Your task to perform on an android device: delete location history Image 0: 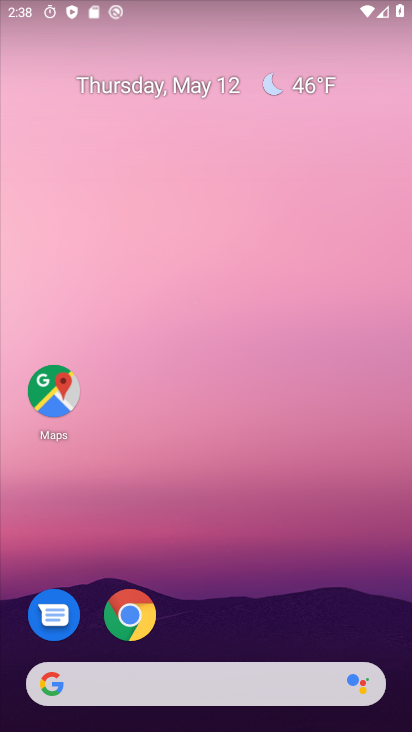
Step 0: drag from (244, 597) to (250, 111)
Your task to perform on an android device: delete location history Image 1: 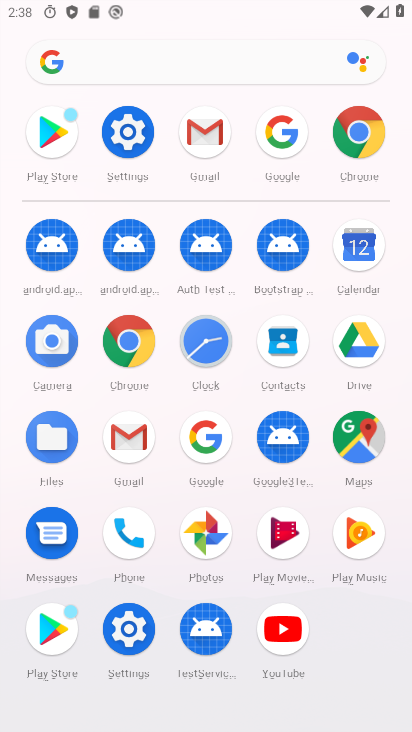
Step 1: click (127, 135)
Your task to perform on an android device: delete location history Image 2: 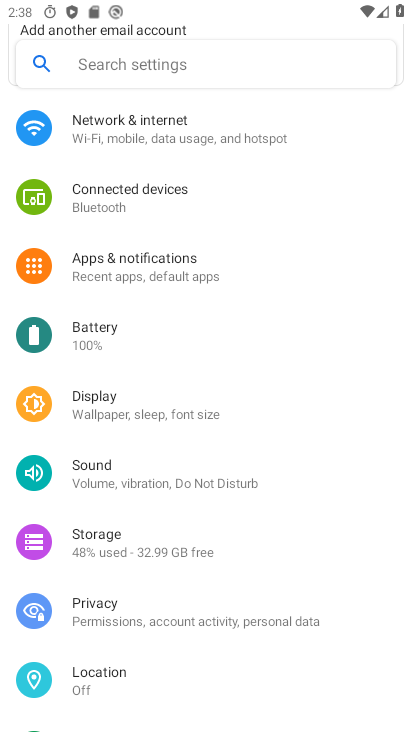
Step 2: drag from (222, 546) to (209, 228)
Your task to perform on an android device: delete location history Image 3: 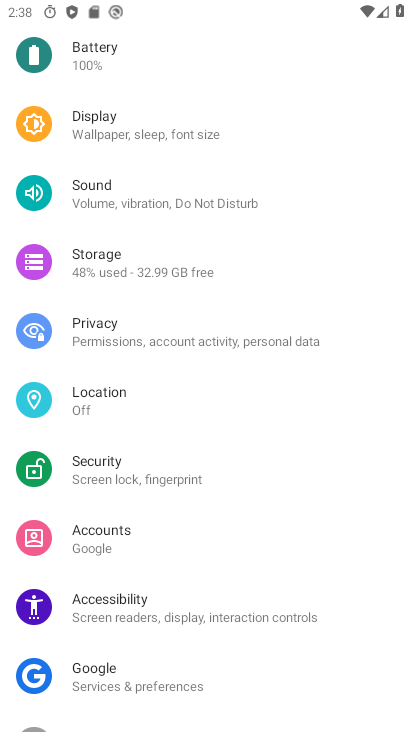
Step 3: click (151, 409)
Your task to perform on an android device: delete location history Image 4: 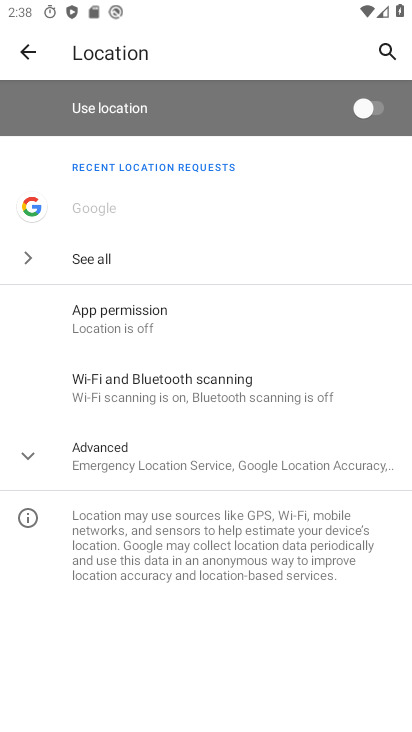
Step 4: click (138, 453)
Your task to perform on an android device: delete location history Image 5: 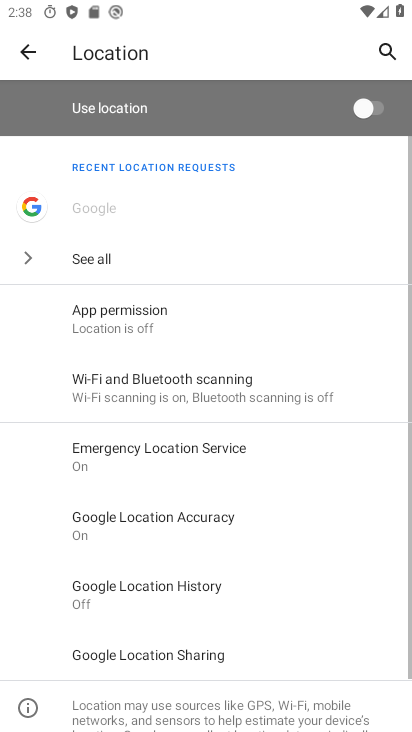
Step 5: drag from (227, 526) to (210, 325)
Your task to perform on an android device: delete location history Image 6: 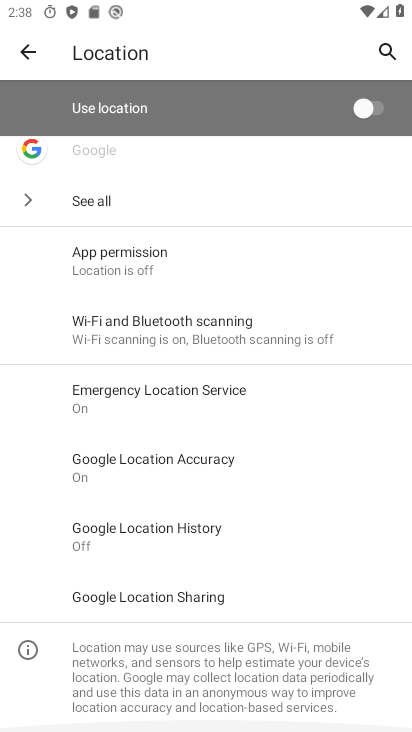
Step 6: click (131, 530)
Your task to perform on an android device: delete location history Image 7: 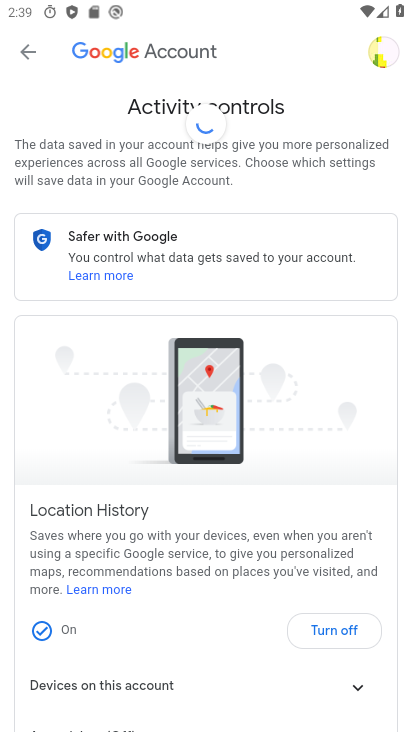
Step 7: drag from (178, 626) to (211, 225)
Your task to perform on an android device: delete location history Image 8: 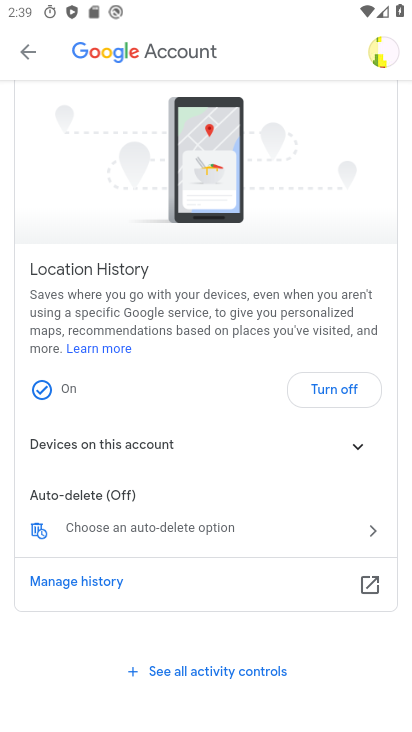
Step 8: click (32, 525)
Your task to perform on an android device: delete location history Image 9: 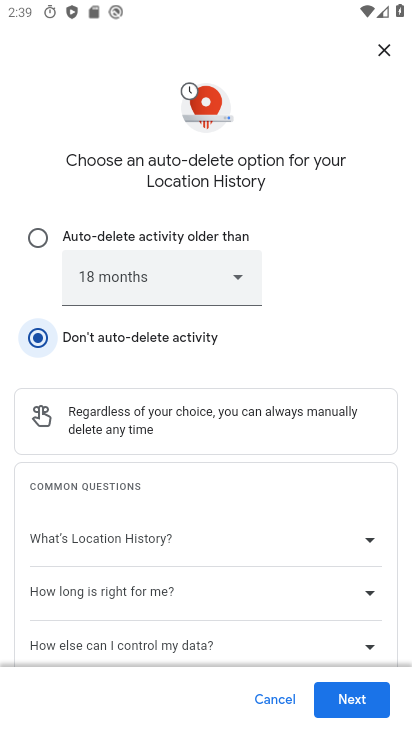
Step 9: click (356, 696)
Your task to perform on an android device: delete location history Image 10: 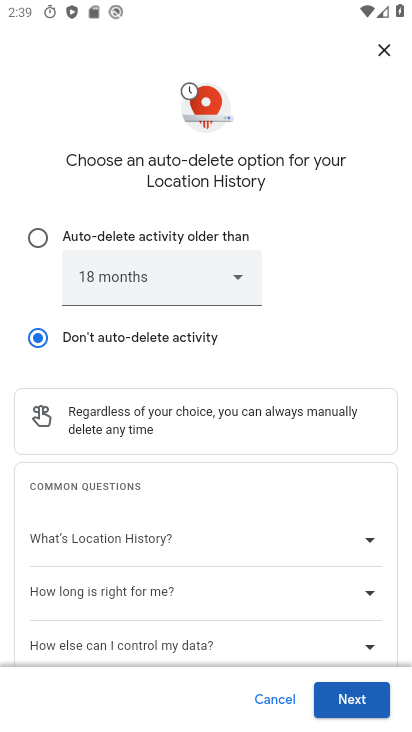
Step 10: click (356, 696)
Your task to perform on an android device: delete location history Image 11: 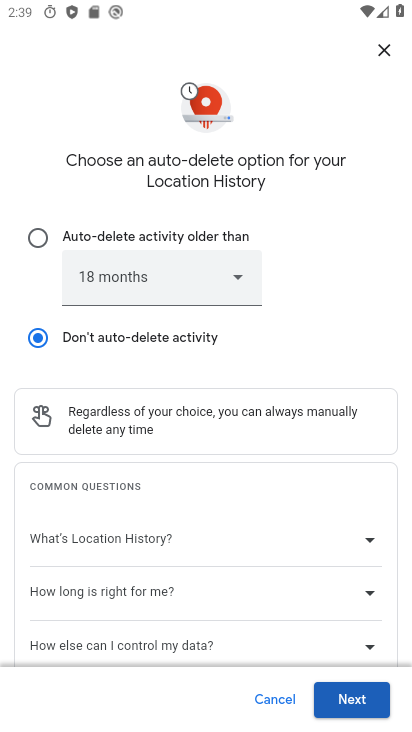
Step 11: drag from (250, 642) to (269, 452)
Your task to perform on an android device: delete location history Image 12: 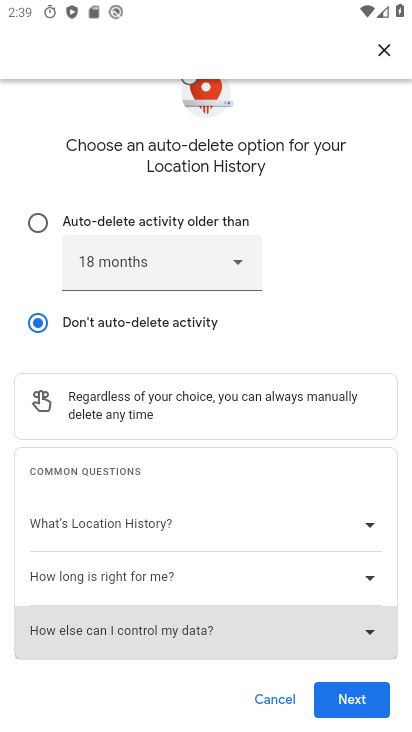
Step 12: click (342, 704)
Your task to perform on an android device: delete location history Image 13: 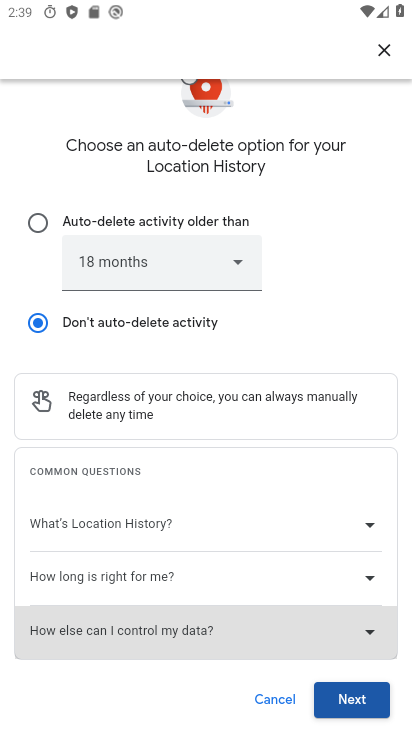
Step 13: click (342, 704)
Your task to perform on an android device: delete location history Image 14: 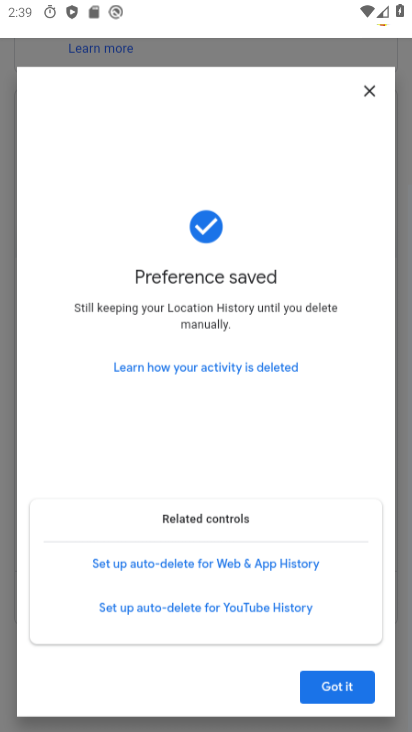
Step 14: click (342, 704)
Your task to perform on an android device: delete location history Image 15: 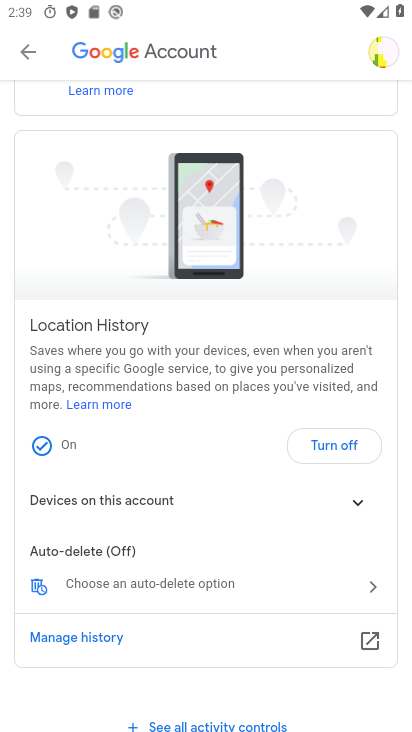
Step 15: task complete